Your task to perform on an android device: search for starred emails in the gmail app Image 0: 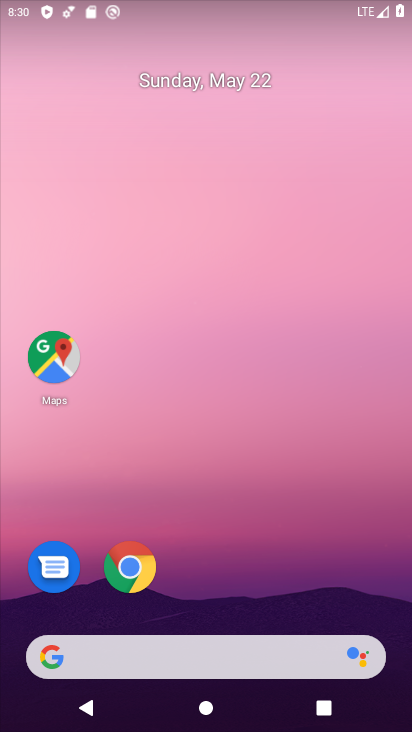
Step 0: drag from (216, 568) to (222, 74)
Your task to perform on an android device: search for starred emails in the gmail app Image 1: 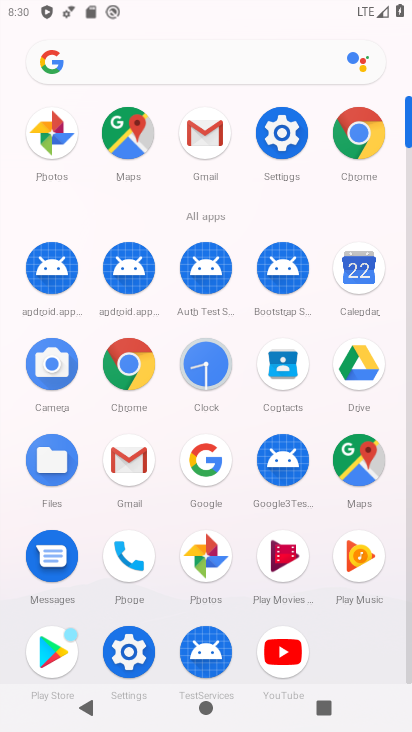
Step 1: click (189, 129)
Your task to perform on an android device: search for starred emails in the gmail app Image 2: 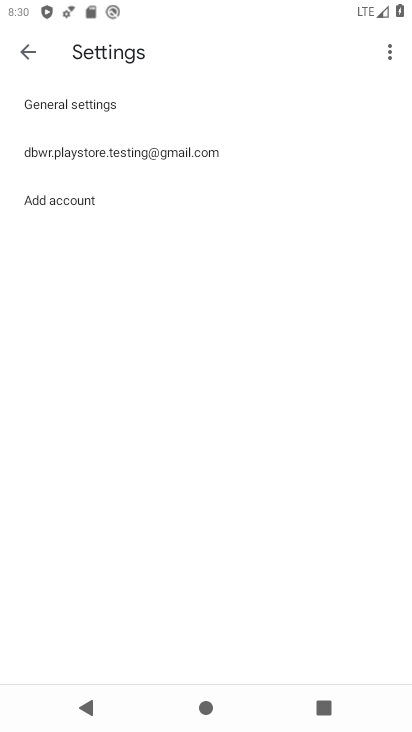
Step 2: click (7, 54)
Your task to perform on an android device: search for starred emails in the gmail app Image 3: 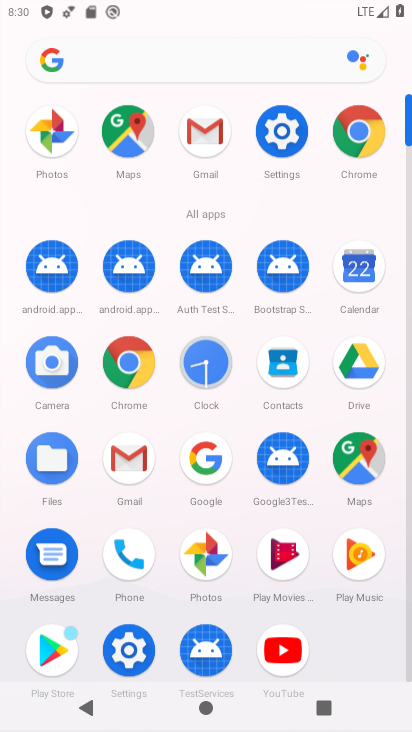
Step 3: click (23, 53)
Your task to perform on an android device: search for starred emails in the gmail app Image 4: 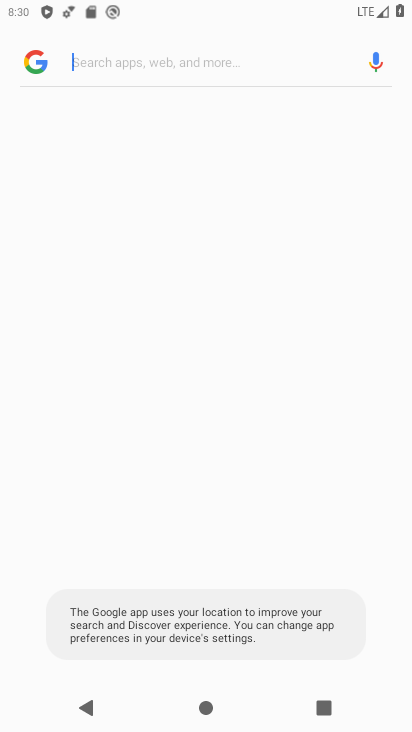
Step 4: click (157, 452)
Your task to perform on an android device: search for starred emails in the gmail app Image 5: 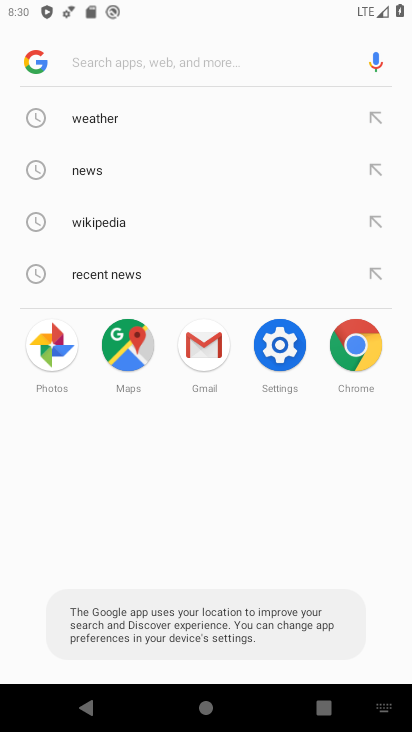
Step 5: press home button
Your task to perform on an android device: search for starred emails in the gmail app Image 6: 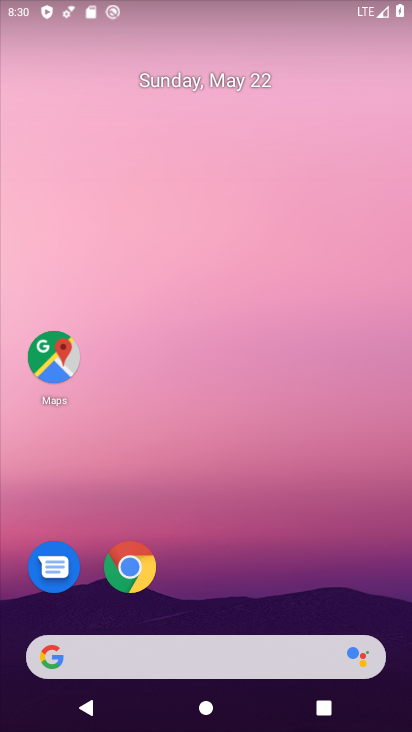
Step 6: drag from (302, 525) to (212, 50)
Your task to perform on an android device: search for starred emails in the gmail app Image 7: 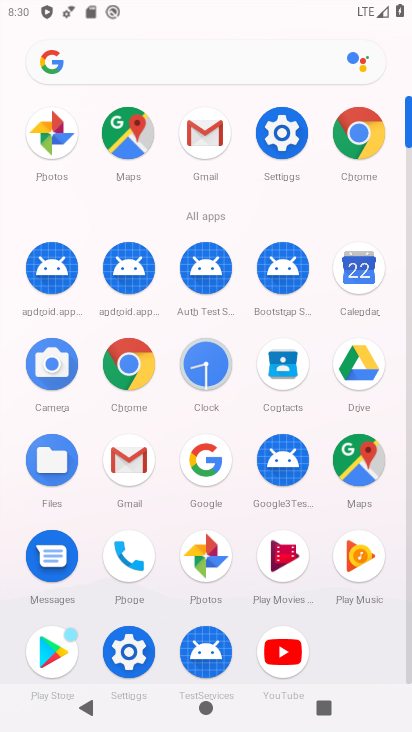
Step 7: click (190, 149)
Your task to perform on an android device: search for starred emails in the gmail app Image 8: 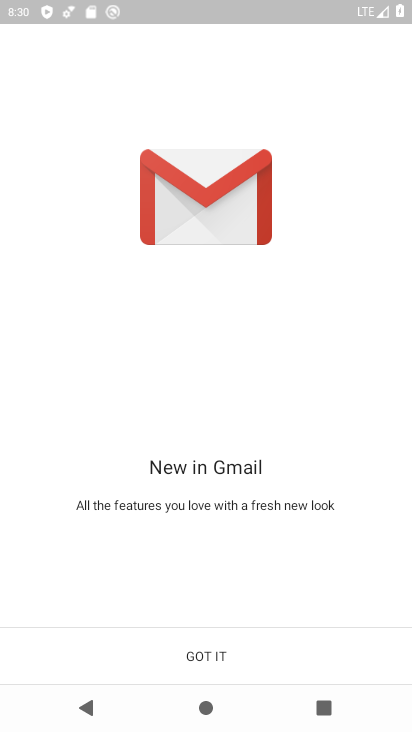
Step 8: click (258, 662)
Your task to perform on an android device: search for starred emails in the gmail app Image 9: 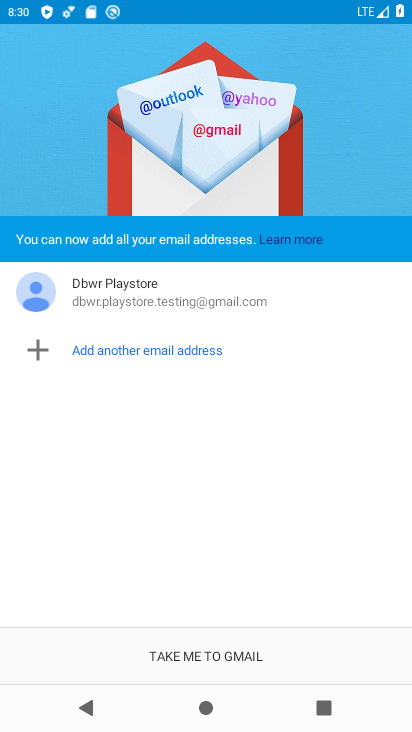
Step 9: click (254, 660)
Your task to perform on an android device: search for starred emails in the gmail app Image 10: 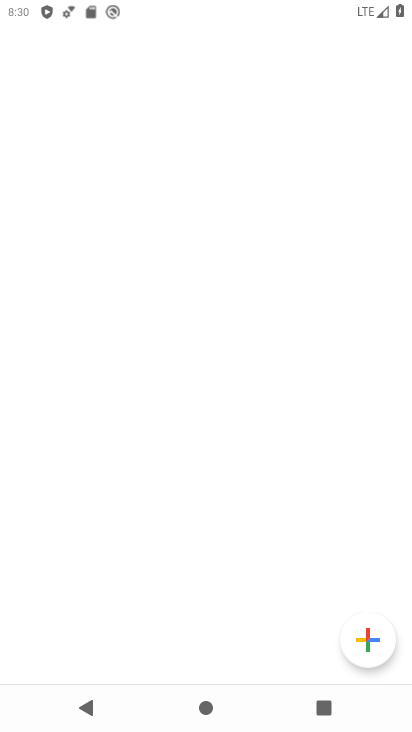
Step 10: click (253, 661)
Your task to perform on an android device: search for starred emails in the gmail app Image 11: 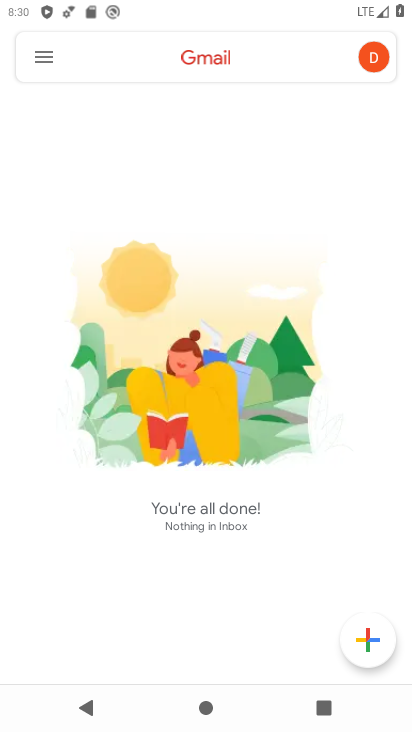
Step 11: click (41, 50)
Your task to perform on an android device: search for starred emails in the gmail app Image 12: 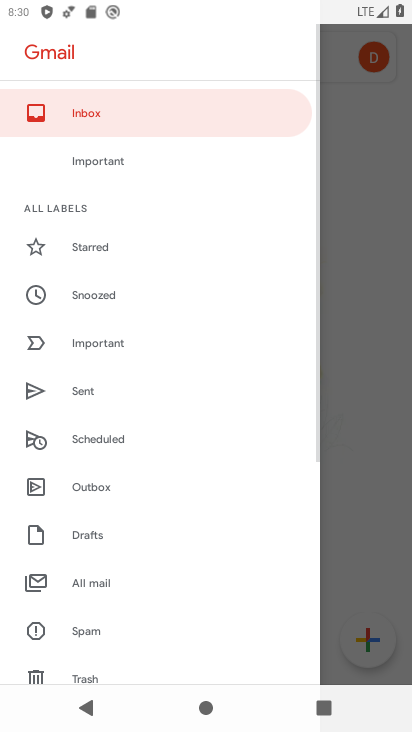
Step 12: click (93, 241)
Your task to perform on an android device: search for starred emails in the gmail app Image 13: 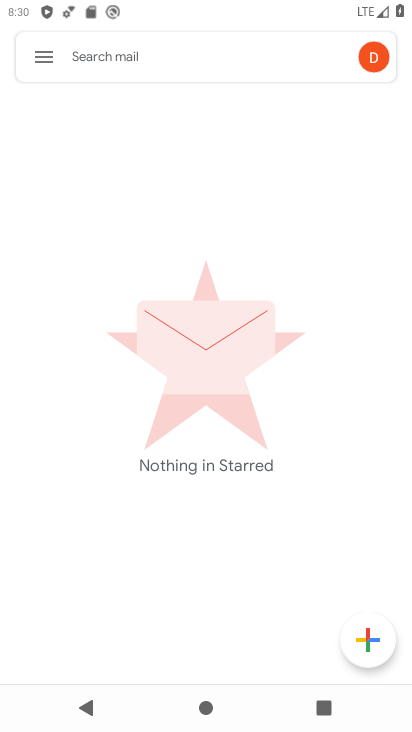
Step 13: task complete